Your task to perform on an android device: check storage Image 0: 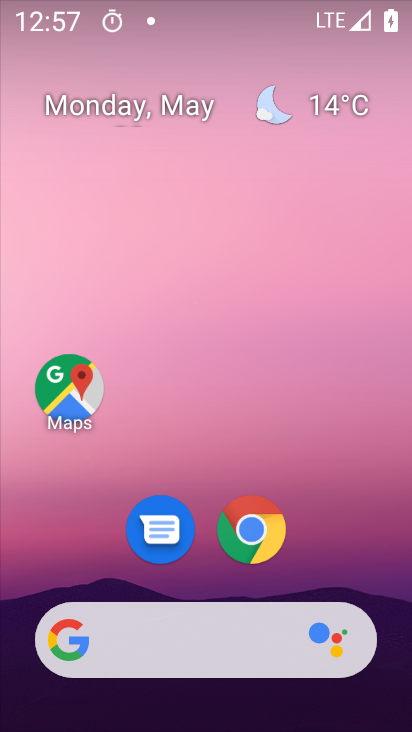
Step 0: drag from (385, 587) to (379, 254)
Your task to perform on an android device: check storage Image 1: 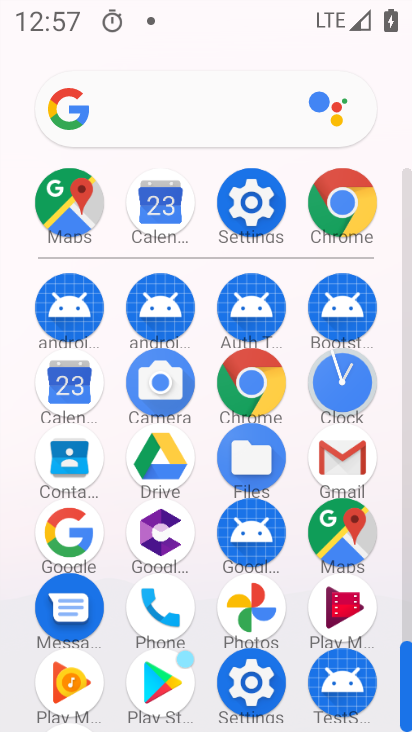
Step 1: click (270, 203)
Your task to perform on an android device: check storage Image 2: 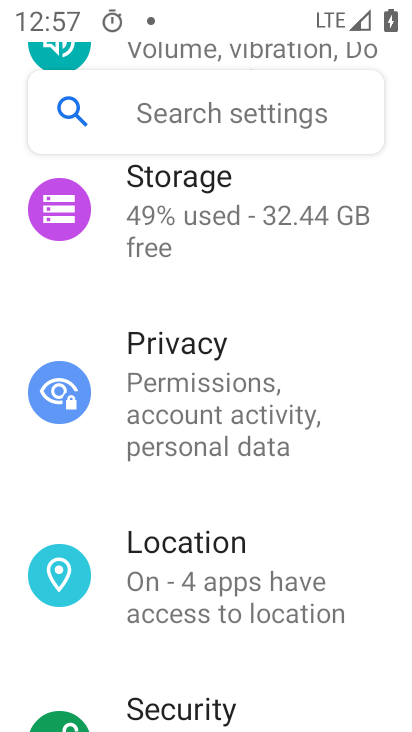
Step 2: drag from (369, 543) to (359, 447)
Your task to perform on an android device: check storage Image 3: 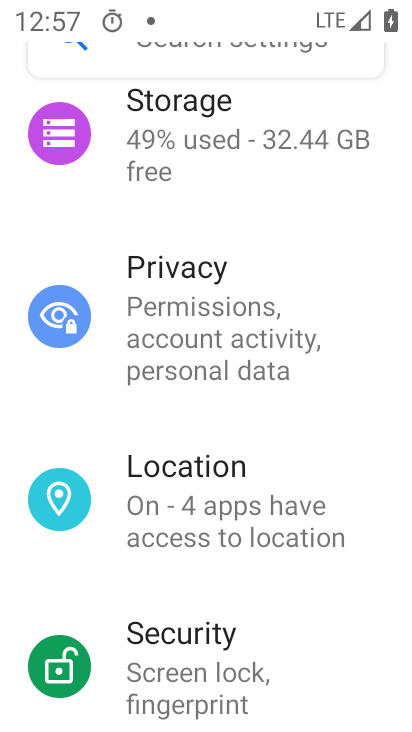
Step 3: drag from (374, 624) to (361, 517)
Your task to perform on an android device: check storage Image 4: 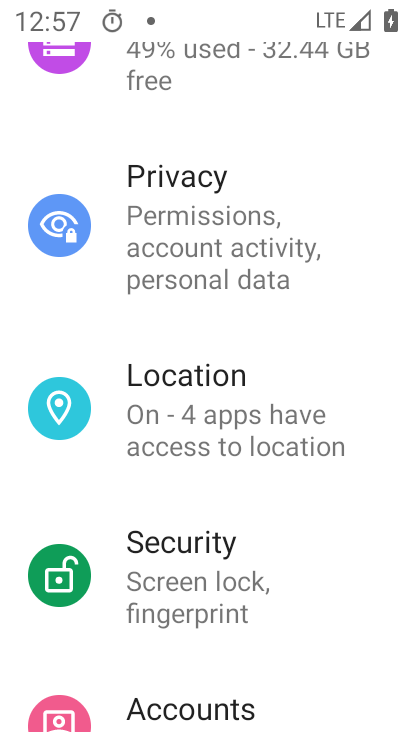
Step 4: drag from (348, 635) to (365, 547)
Your task to perform on an android device: check storage Image 5: 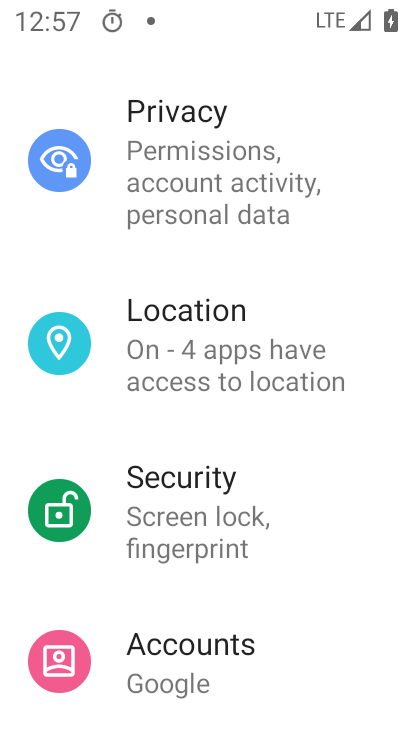
Step 5: drag from (365, 645) to (374, 531)
Your task to perform on an android device: check storage Image 6: 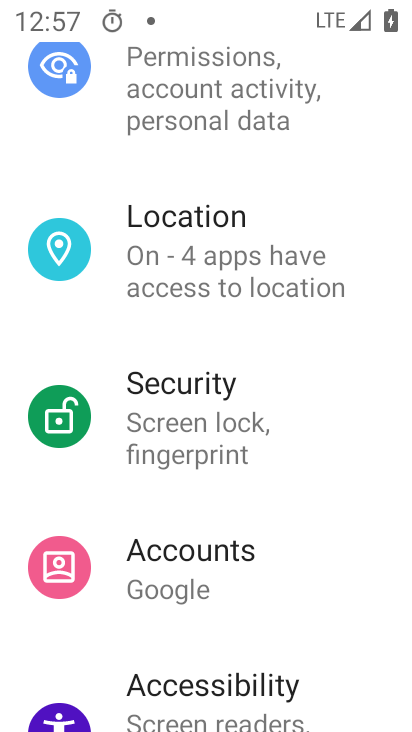
Step 6: drag from (354, 630) to (355, 526)
Your task to perform on an android device: check storage Image 7: 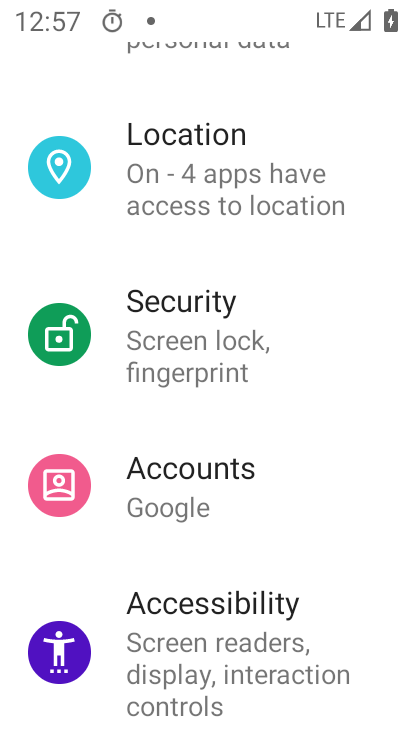
Step 7: drag from (366, 670) to (359, 558)
Your task to perform on an android device: check storage Image 8: 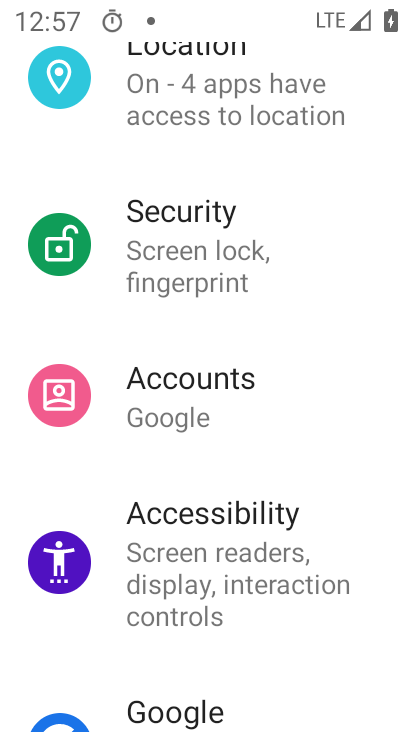
Step 8: drag from (369, 665) to (362, 529)
Your task to perform on an android device: check storage Image 9: 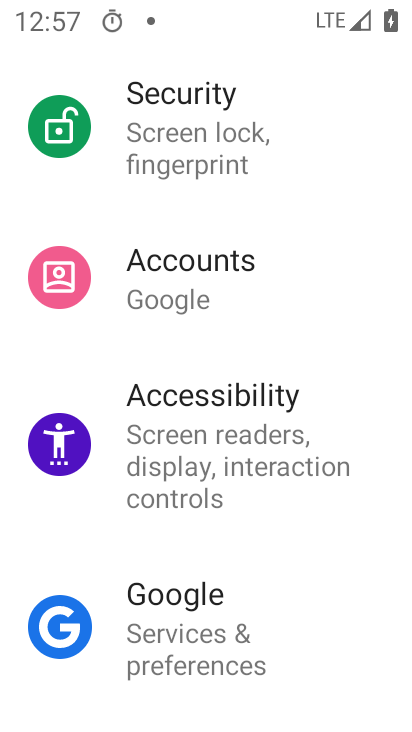
Step 9: drag from (363, 667) to (364, 481)
Your task to perform on an android device: check storage Image 10: 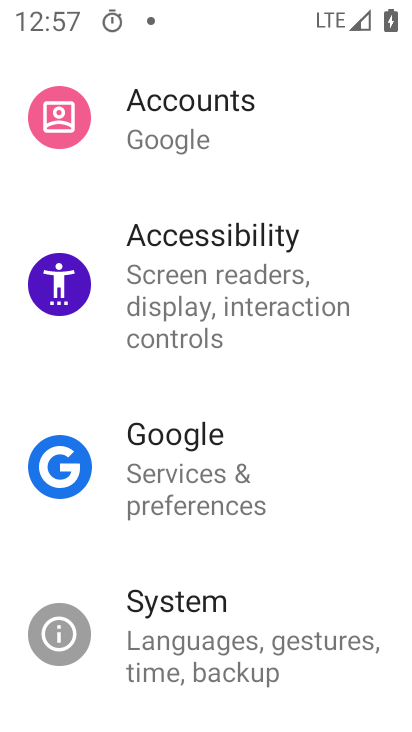
Step 10: drag from (365, 368) to (372, 462)
Your task to perform on an android device: check storage Image 11: 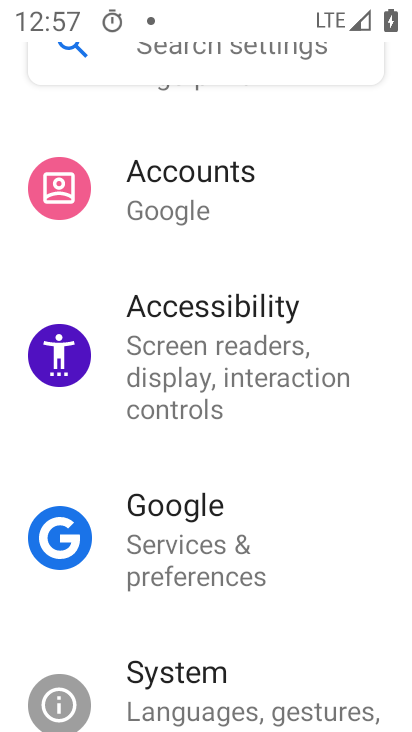
Step 11: drag from (374, 330) to (369, 425)
Your task to perform on an android device: check storage Image 12: 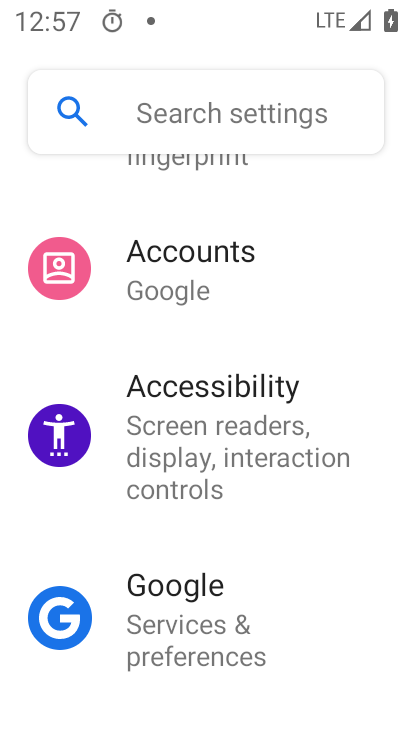
Step 12: drag from (369, 326) to (369, 428)
Your task to perform on an android device: check storage Image 13: 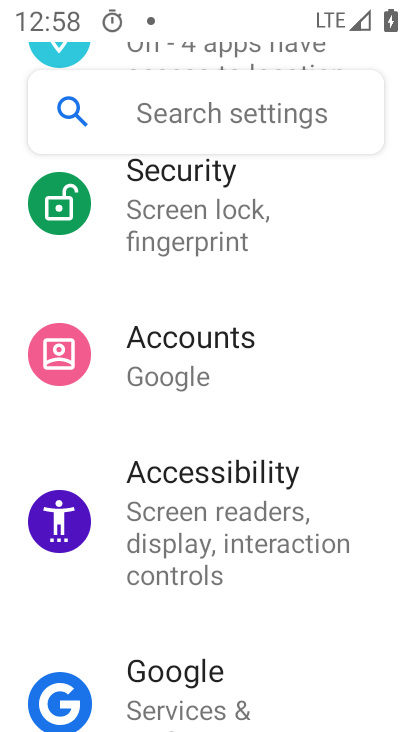
Step 13: drag from (351, 290) to (350, 388)
Your task to perform on an android device: check storage Image 14: 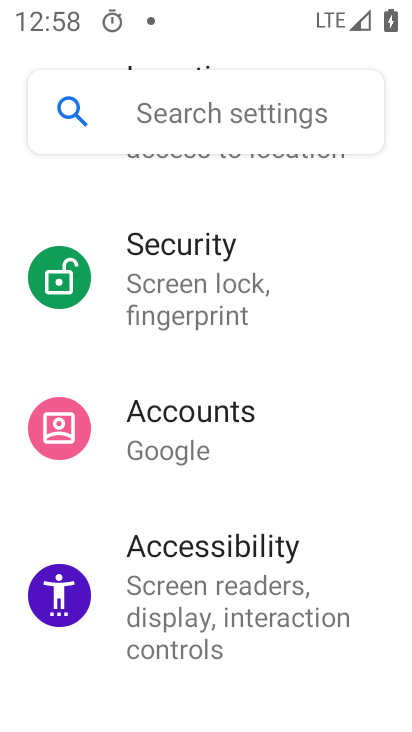
Step 14: drag from (348, 265) to (346, 346)
Your task to perform on an android device: check storage Image 15: 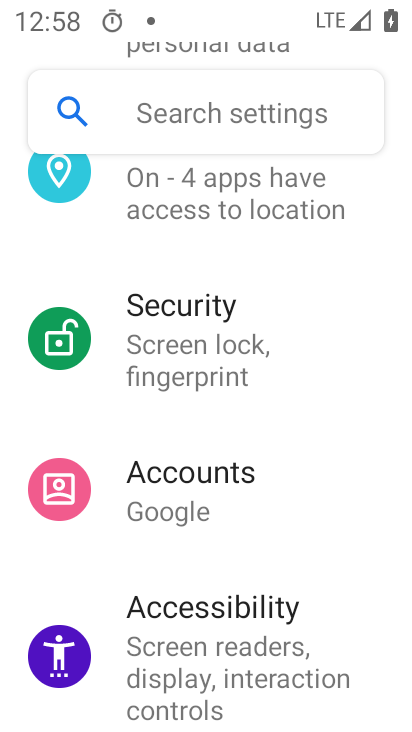
Step 15: drag from (370, 227) to (367, 334)
Your task to perform on an android device: check storage Image 16: 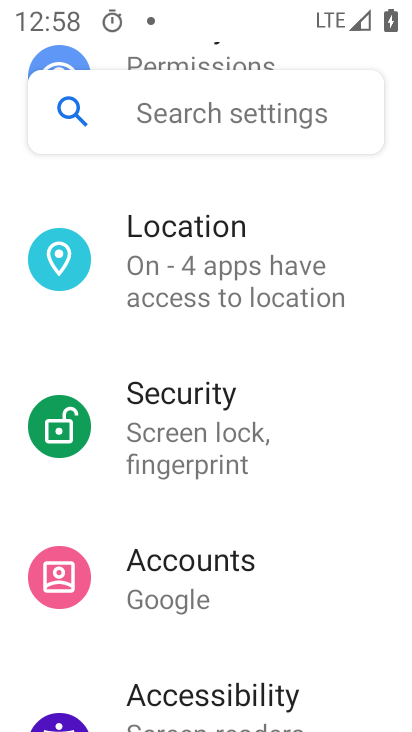
Step 16: drag from (367, 205) to (367, 321)
Your task to perform on an android device: check storage Image 17: 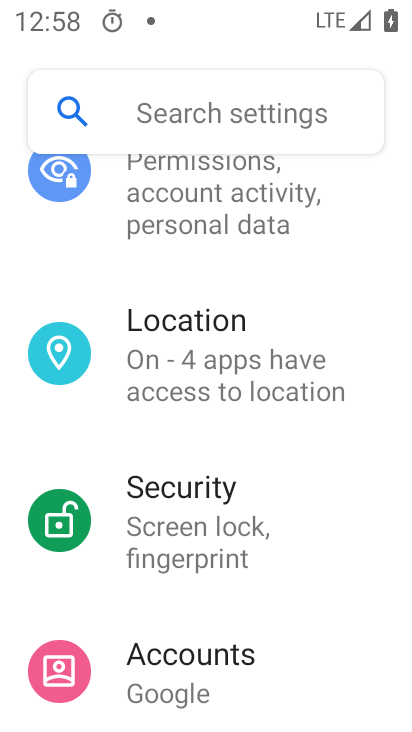
Step 17: drag from (362, 183) to (346, 289)
Your task to perform on an android device: check storage Image 18: 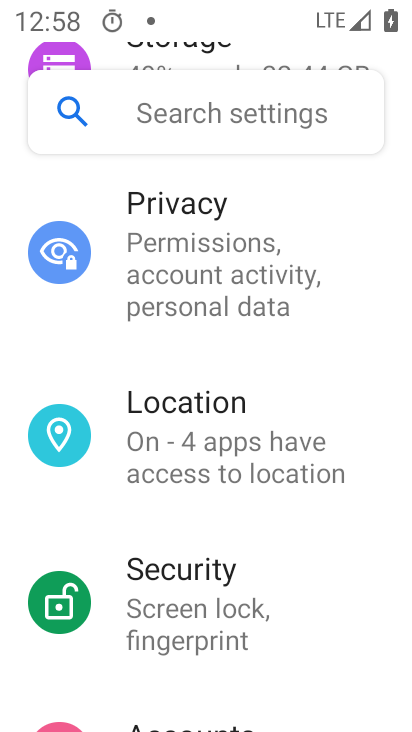
Step 18: drag from (349, 256) to (353, 359)
Your task to perform on an android device: check storage Image 19: 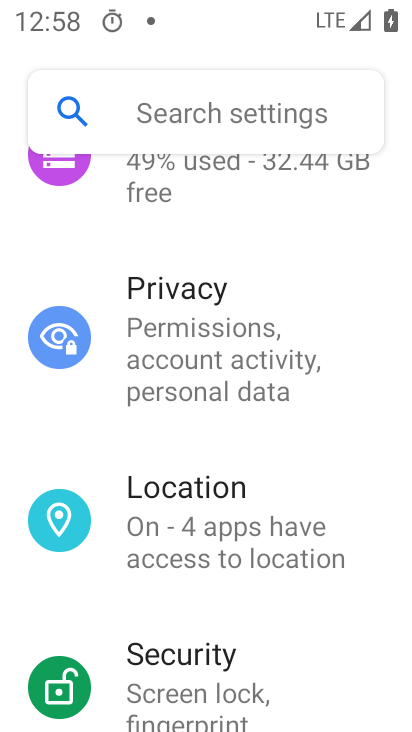
Step 19: drag from (354, 264) to (359, 367)
Your task to perform on an android device: check storage Image 20: 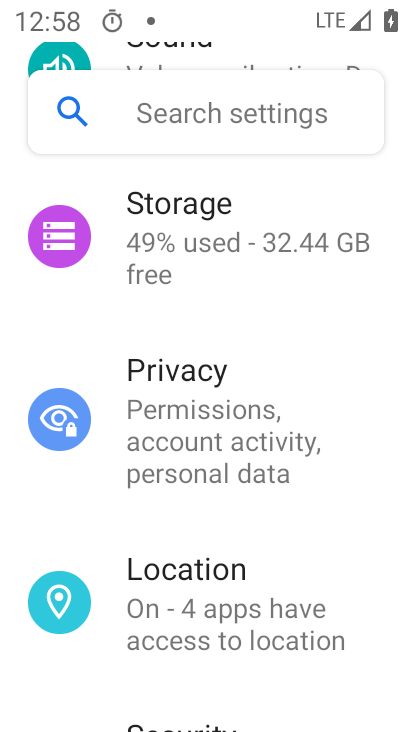
Step 20: drag from (374, 226) to (370, 326)
Your task to perform on an android device: check storage Image 21: 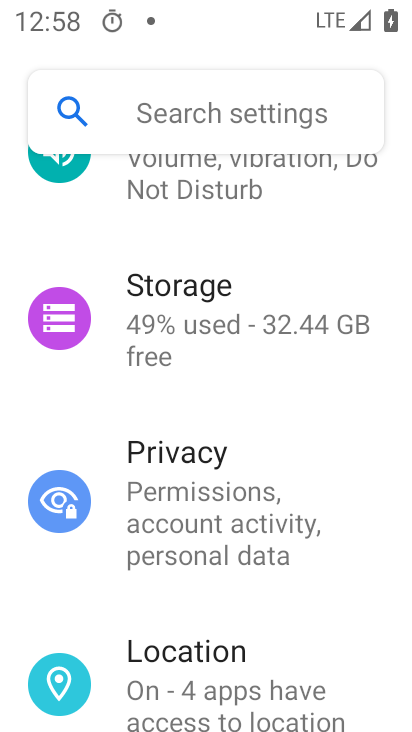
Step 21: drag from (356, 221) to (352, 339)
Your task to perform on an android device: check storage Image 22: 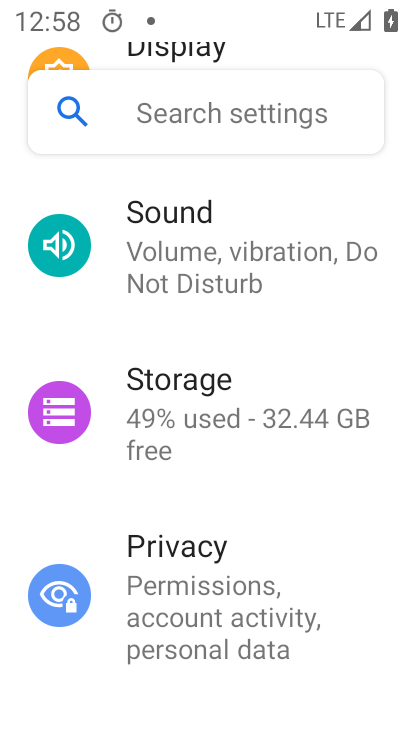
Step 22: drag from (365, 197) to (366, 328)
Your task to perform on an android device: check storage Image 23: 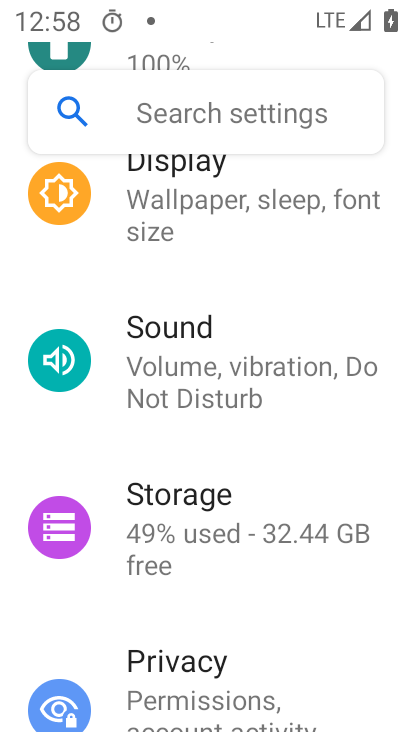
Step 23: drag from (358, 205) to (349, 327)
Your task to perform on an android device: check storage Image 24: 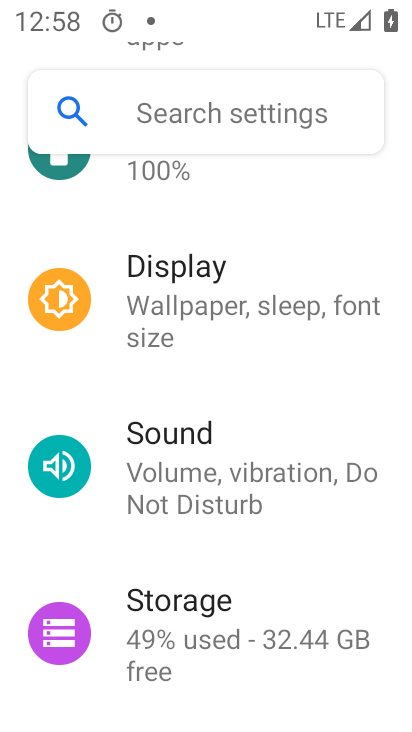
Step 24: click (254, 622)
Your task to perform on an android device: check storage Image 25: 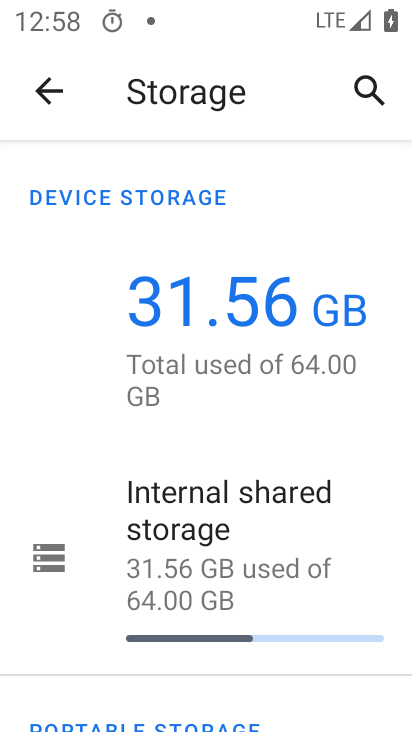
Step 25: task complete